Your task to perform on an android device: turn on improve location accuracy Image 0: 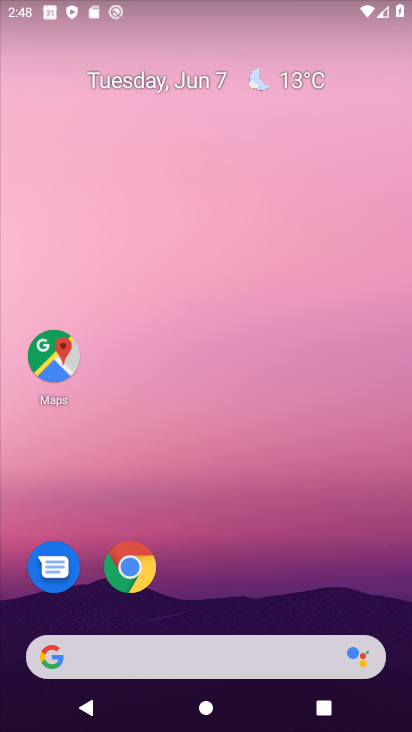
Step 0: drag from (180, 593) to (235, 76)
Your task to perform on an android device: turn on improve location accuracy Image 1: 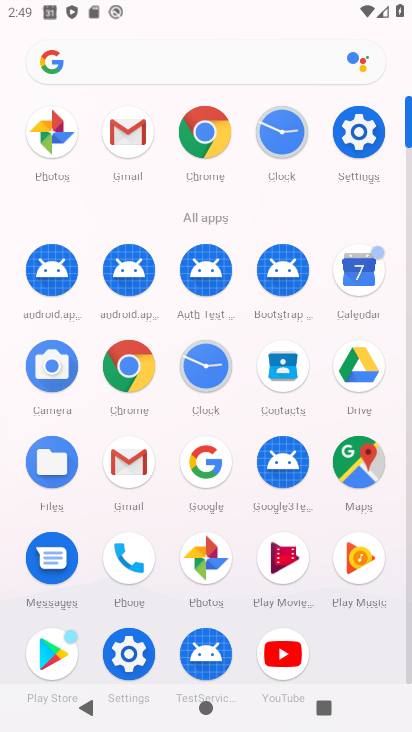
Step 1: click (351, 129)
Your task to perform on an android device: turn on improve location accuracy Image 2: 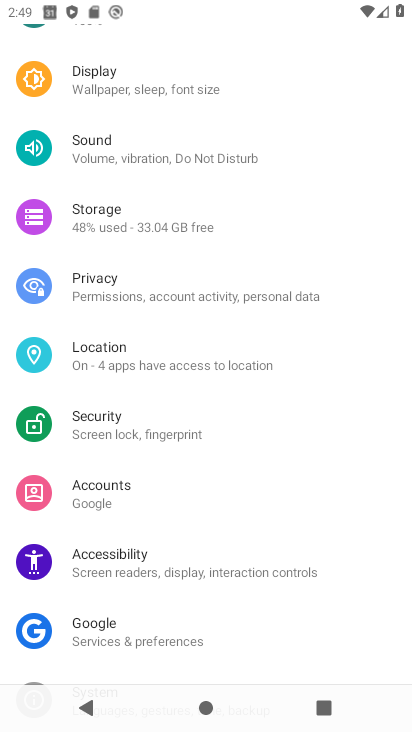
Step 2: click (121, 361)
Your task to perform on an android device: turn on improve location accuracy Image 3: 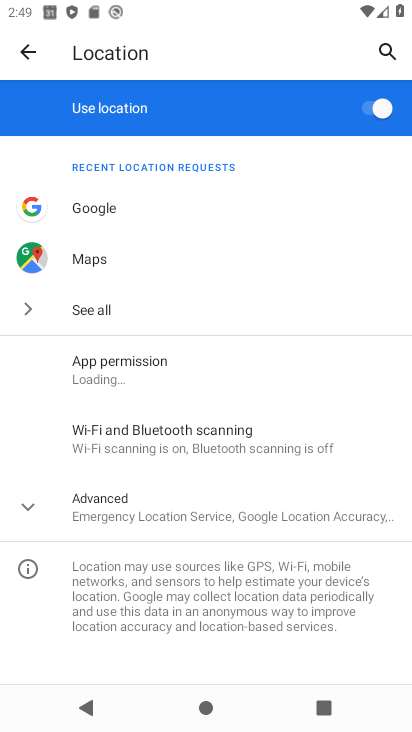
Step 3: click (142, 507)
Your task to perform on an android device: turn on improve location accuracy Image 4: 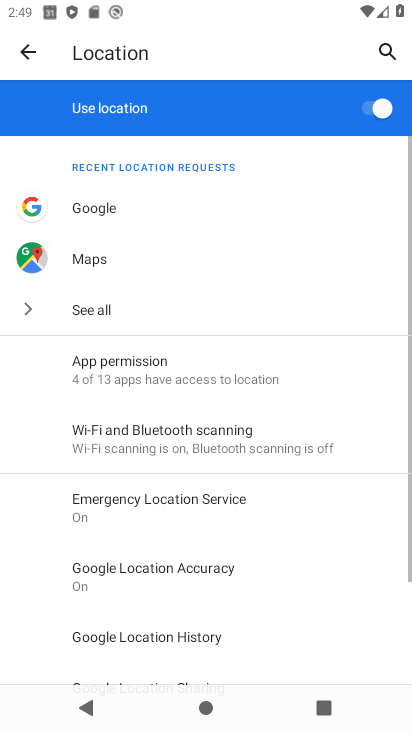
Step 4: click (148, 554)
Your task to perform on an android device: turn on improve location accuracy Image 5: 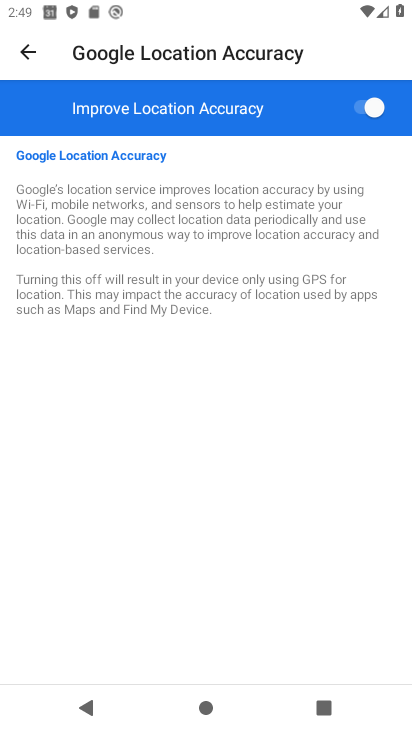
Step 5: task complete